Your task to perform on an android device: star an email in the gmail app Image 0: 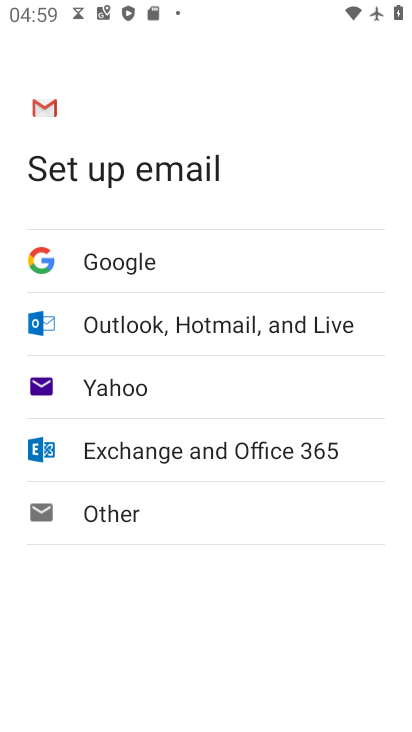
Step 0: press back button
Your task to perform on an android device: star an email in the gmail app Image 1: 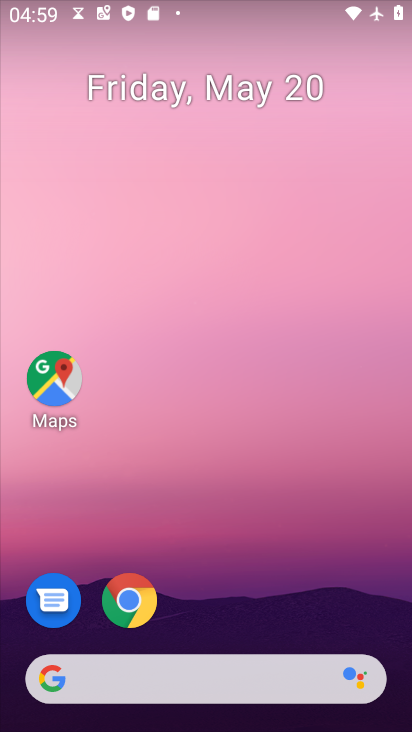
Step 1: drag from (198, 548) to (186, 91)
Your task to perform on an android device: star an email in the gmail app Image 2: 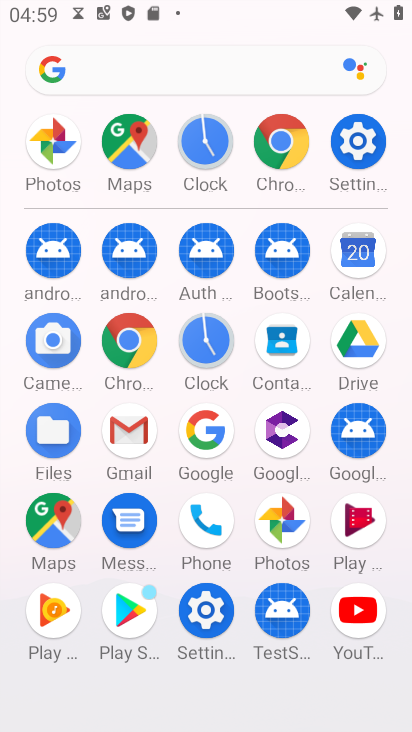
Step 2: drag from (6, 513) to (10, 228)
Your task to perform on an android device: star an email in the gmail app Image 3: 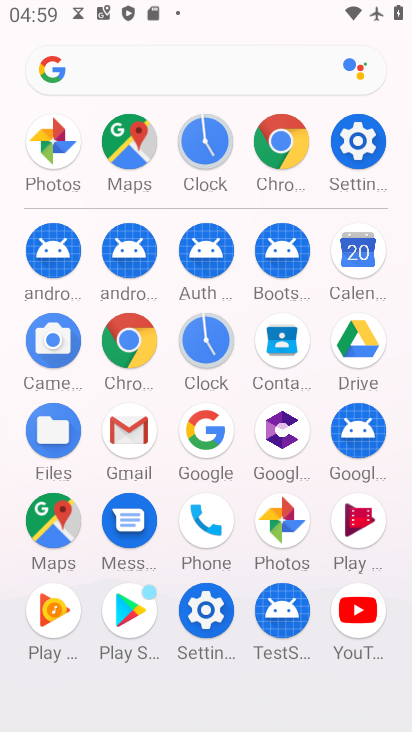
Step 3: click (119, 427)
Your task to perform on an android device: star an email in the gmail app Image 4: 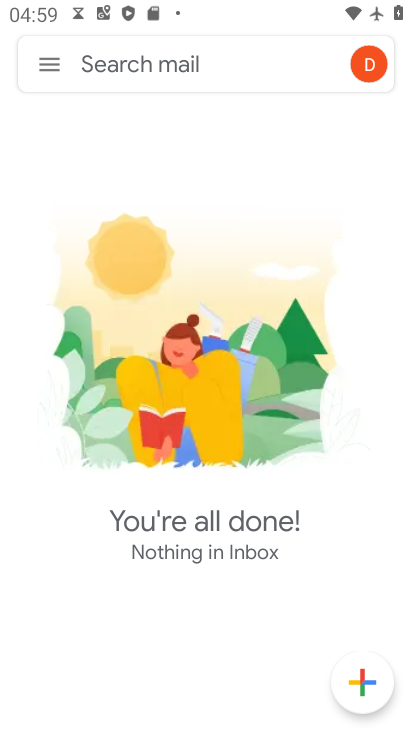
Step 4: click (46, 71)
Your task to perform on an android device: star an email in the gmail app Image 5: 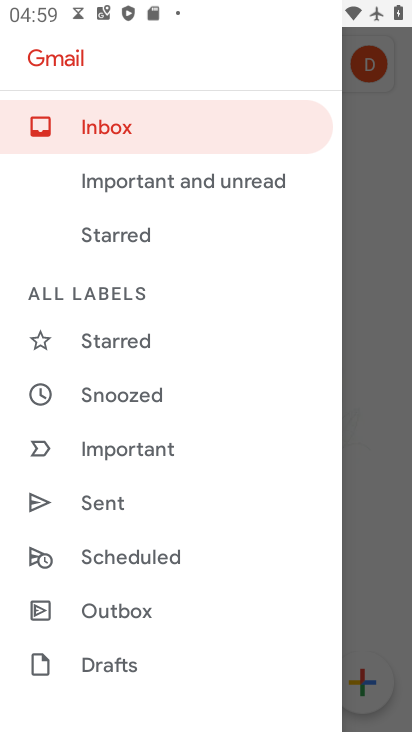
Step 5: drag from (191, 240) to (199, 535)
Your task to perform on an android device: star an email in the gmail app Image 6: 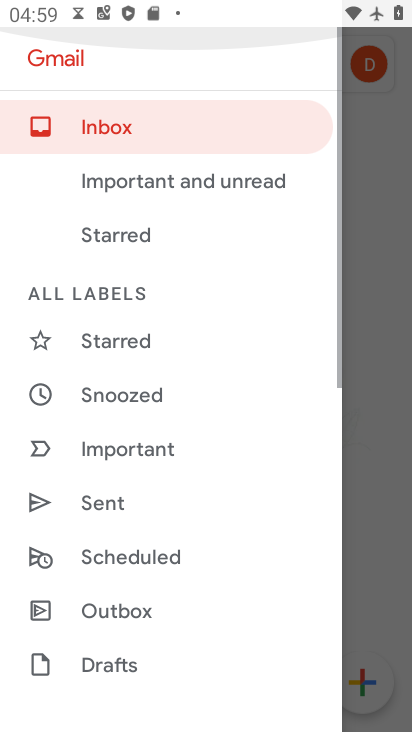
Step 6: drag from (191, 527) to (194, 228)
Your task to perform on an android device: star an email in the gmail app Image 7: 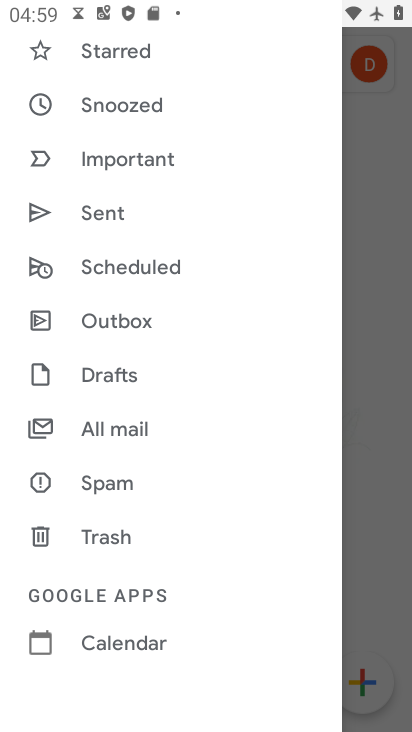
Step 7: drag from (217, 161) to (162, 657)
Your task to perform on an android device: star an email in the gmail app Image 8: 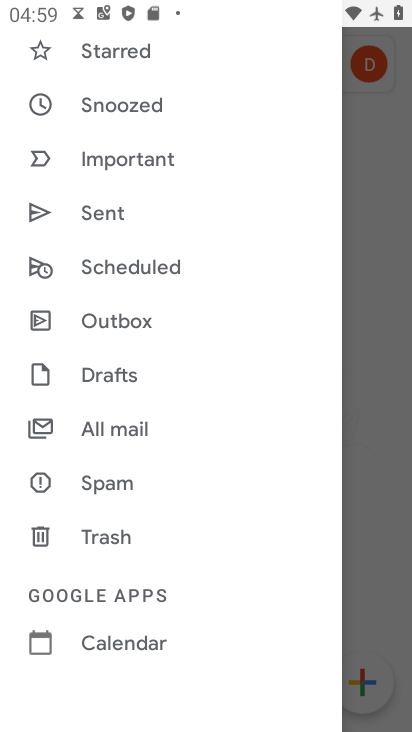
Step 8: drag from (152, 156) to (205, 472)
Your task to perform on an android device: star an email in the gmail app Image 9: 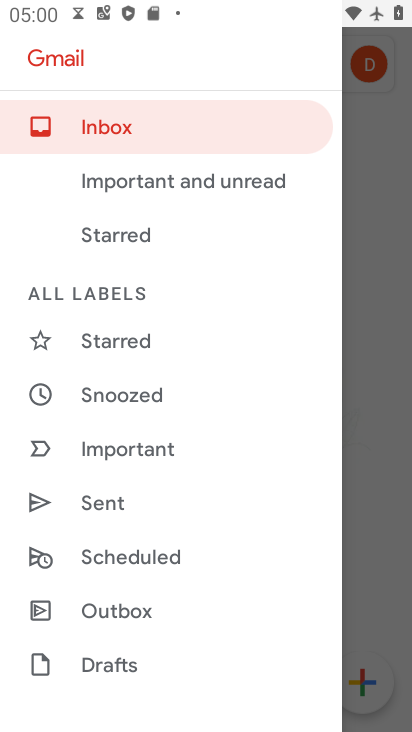
Step 9: click (175, 104)
Your task to perform on an android device: star an email in the gmail app Image 10: 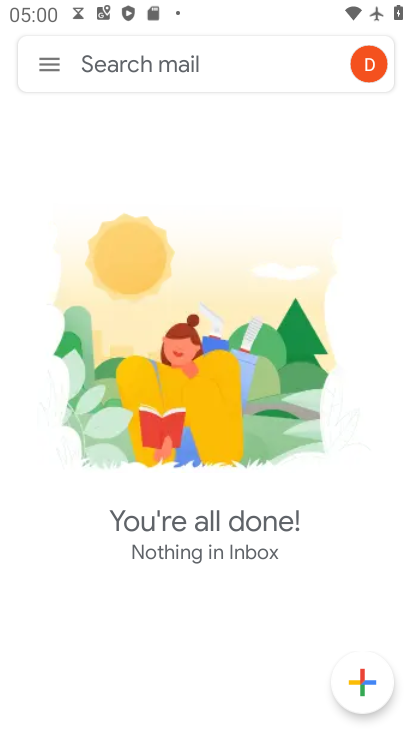
Step 10: click (55, 55)
Your task to perform on an android device: star an email in the gmail app Image 11: 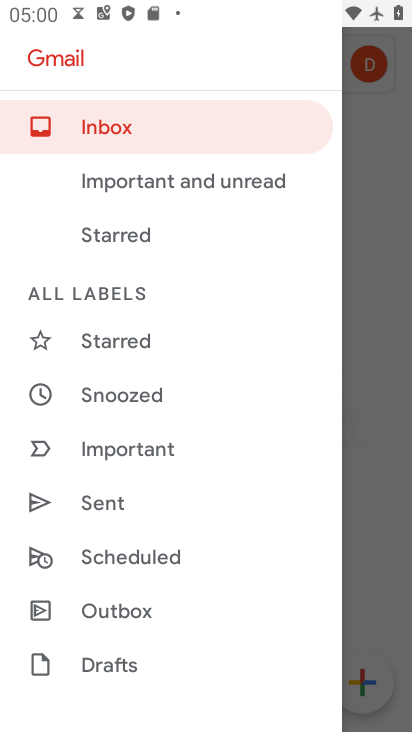
Step 11: drag from (157, 660) to (194, 197)
Your task to perform on an android device: star an email in the gmail app Image 12: 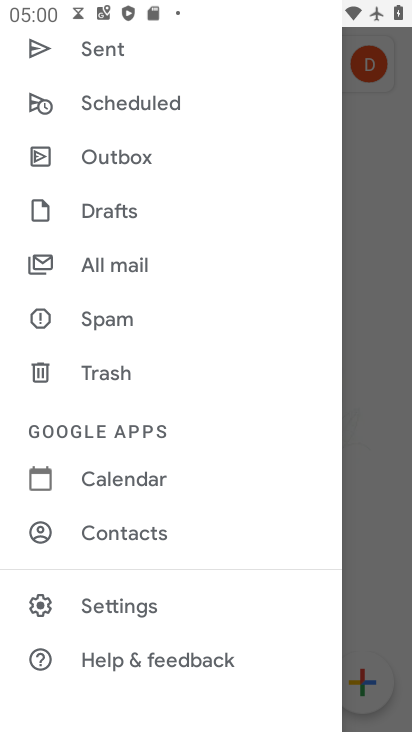
Step 12: click (134, 271)
Your task to perform on an android device: star an email in the gmail app Image 13: 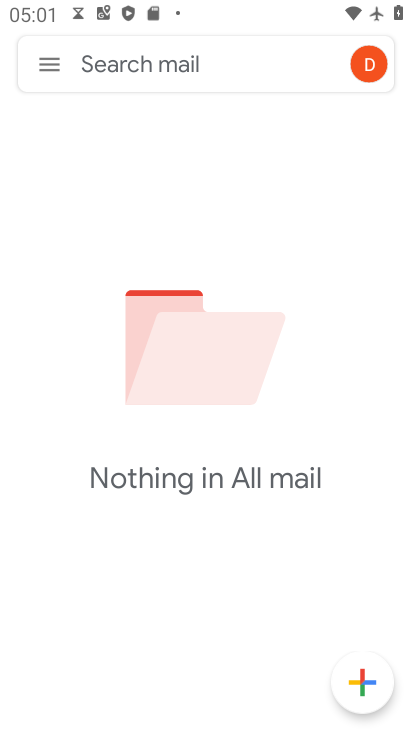
Step 13: task complete